Your task to perform on an android device: Open ESPN.com Image 0: 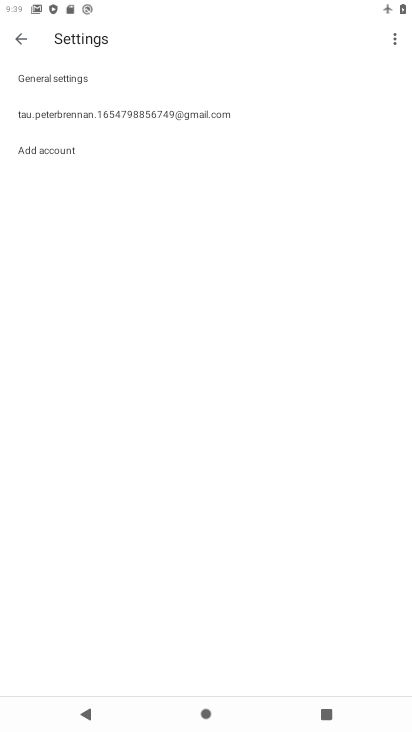
Step 0: press home button
Your task to perform on an android device: Open ESPN.com Image 1: 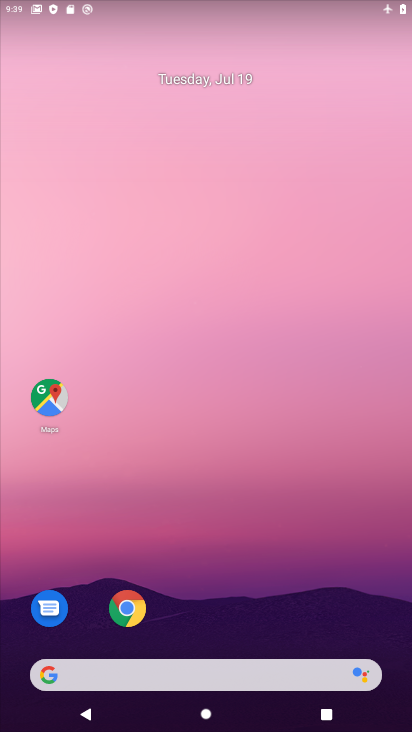
Step 1: click (128, 603)
Your task to perform on an android device: Open ESPN.com Image 2: 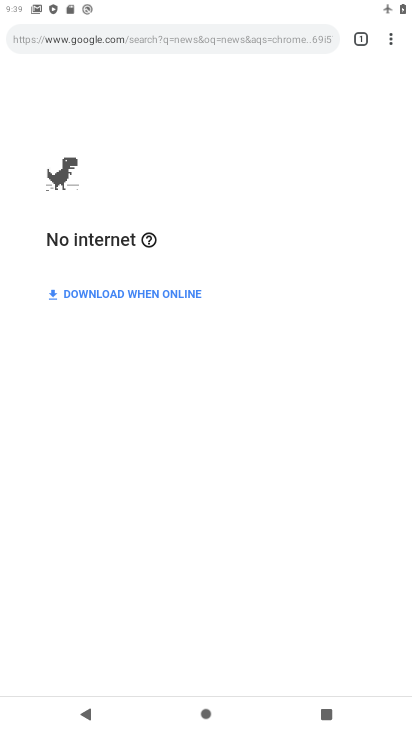
Step 2: click (187, 36)
Your task to perform on an android device: Open ESPN.com Image 3: 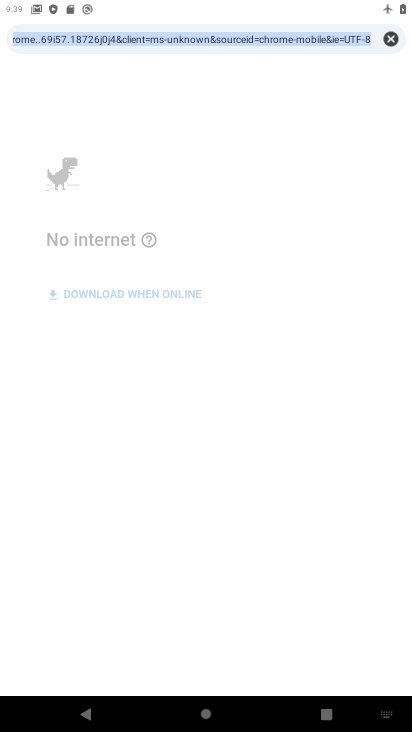
Step 3: type "espn.com"
Your task to perform on an android device: Open ESPN.com Image 4: 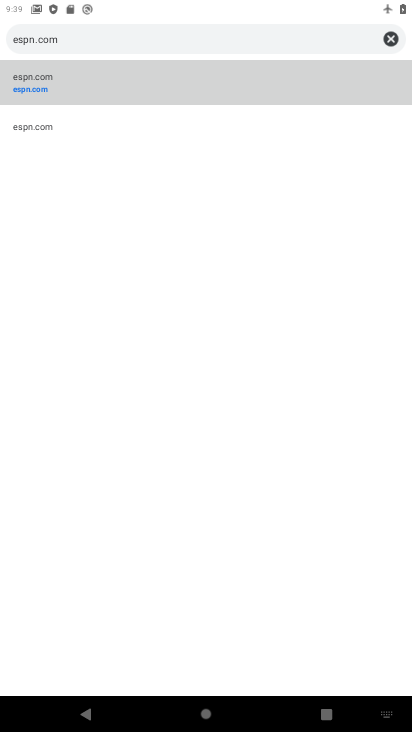
Step 4: click (43, 75)
Your task to perform on an android device: Open ESPN.com Image 5: 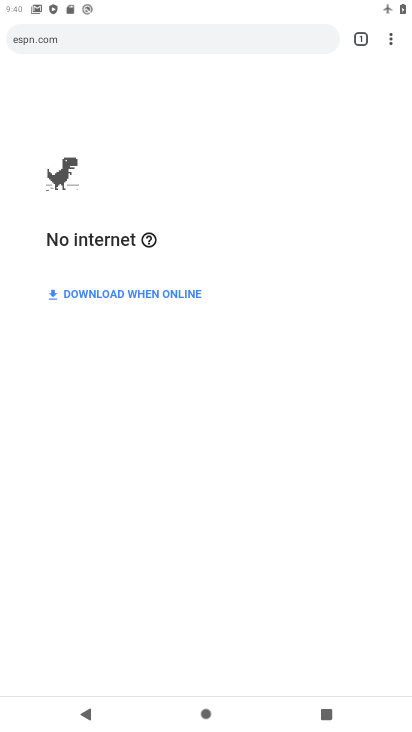
Step 5: task complete